Your task to perform on an android device: check data usage Image 0: 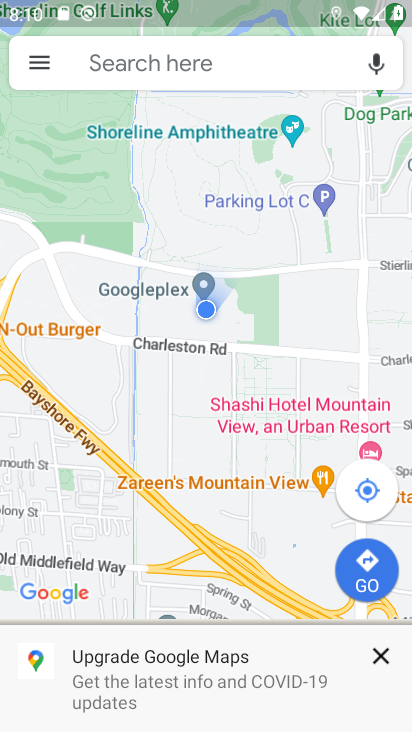
Step 0: press home button
Your task to perform on an android device: check data usage Image 1: 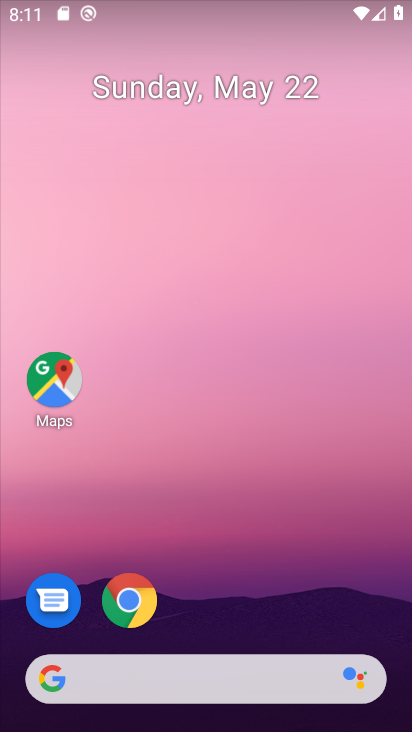
Step 1: drag from (209, 650) to (280, 154)
Your task to perform on an android device: check data usage Image 2: 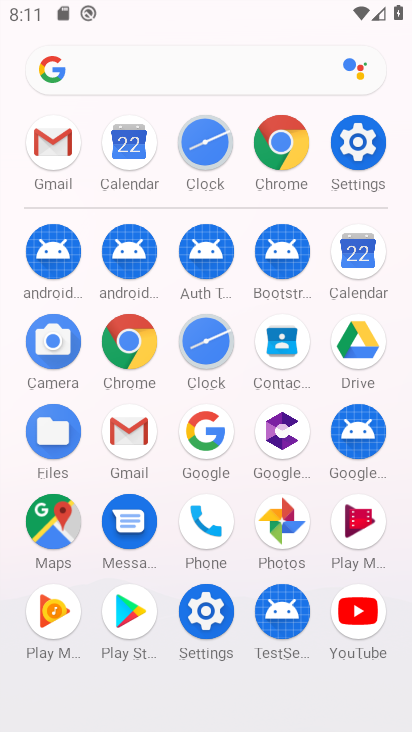
Step 2: click (323, 139)
Your task to perform on an android device: check data usage Image 3: 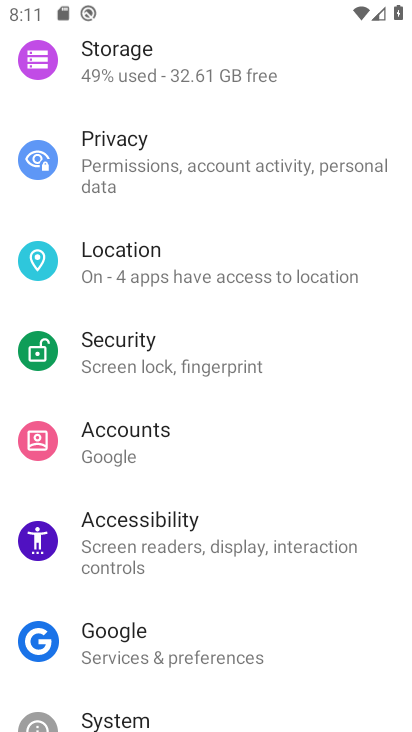
Step 3: drag from (209, 80) to (226, 545)
Your task to perform on an android device: check data usage Image 4: 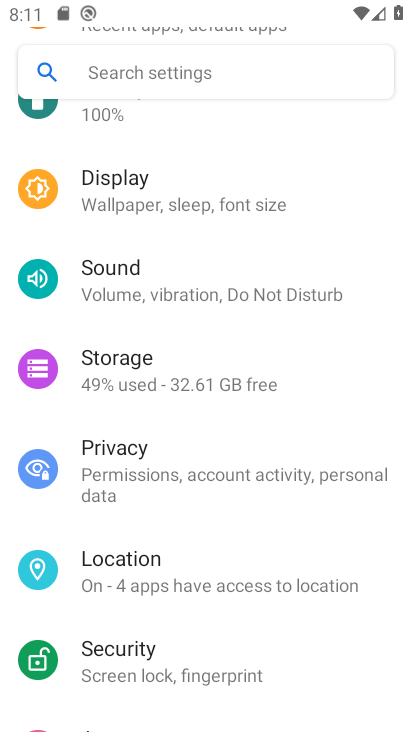
Step 4: drag from (209, 120) to (219, 550)
Your task to perform on an android device: check data usage Image 5: 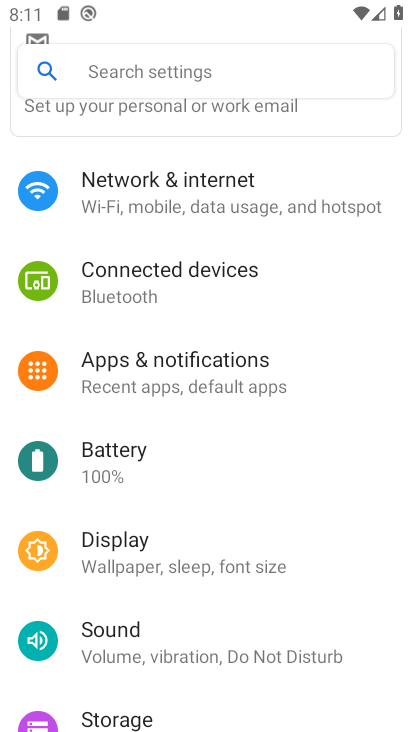
Step 5: click (186, 195)
Your task to perform on an android device: check data usage Image 6: 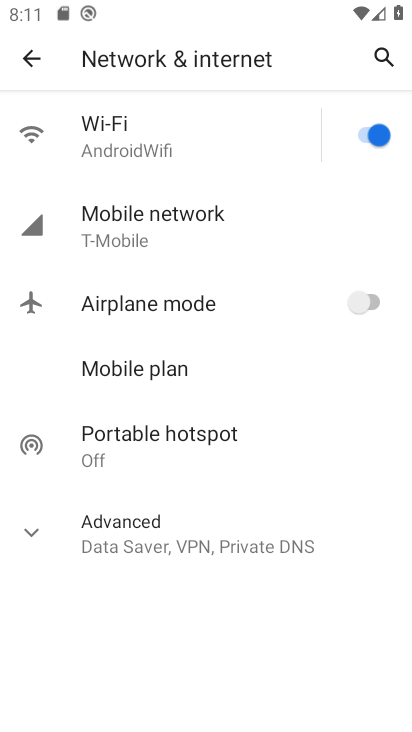
Step 6: click (139, 235)
Your task to perform on an android device: check data usage Image 7: 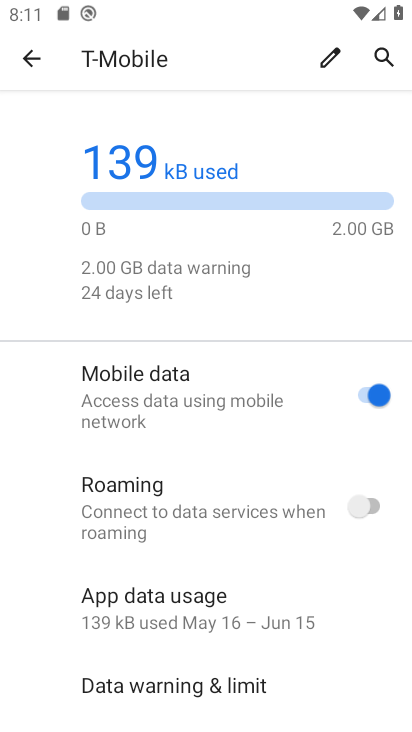
Step 7: task complete